Your task to perform on an android device: star an email in the gmail app Image 0: 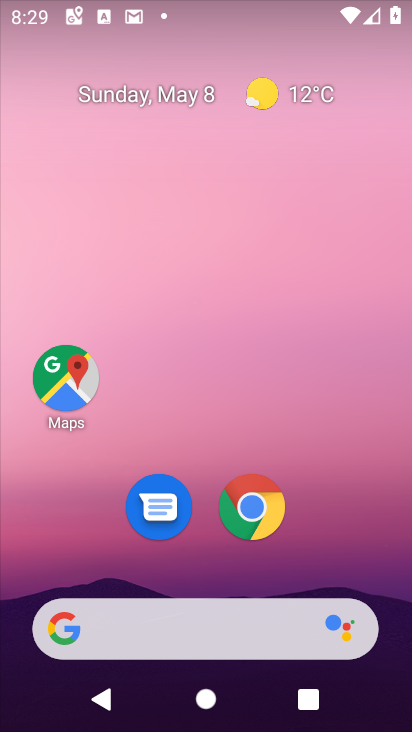
Step 0: click (179, 110)
Your task to perform on an android device: star an email in the gmail app Image 1: 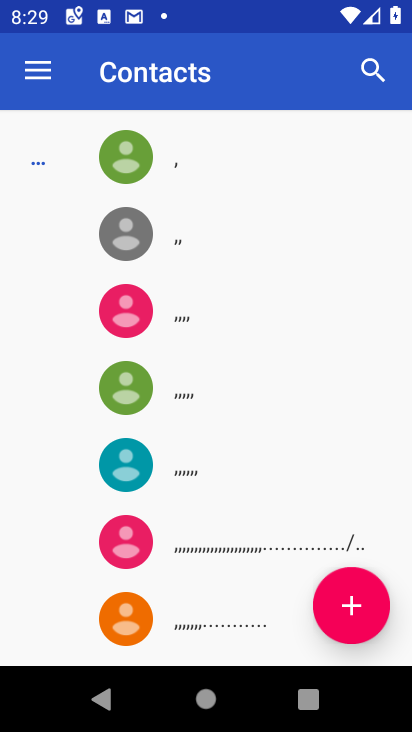
Step 1: press home button
Your task to perform on an android device: star an email in the gmail app Image 2: 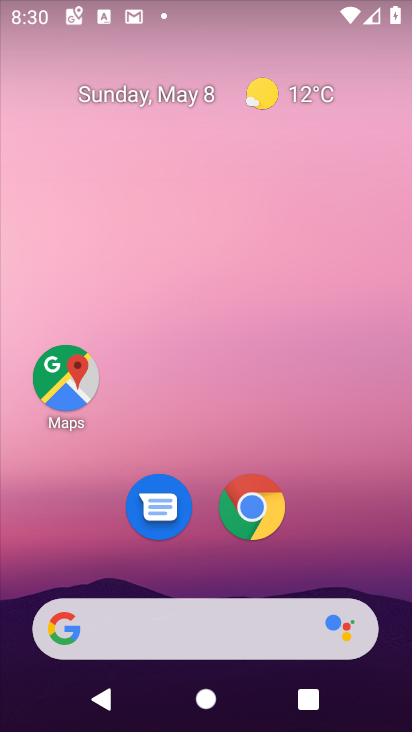
Step 2: drag from (256, 692) to (265, 150)
Your task to perform on an android device: star an email in the gmail app Image 3: 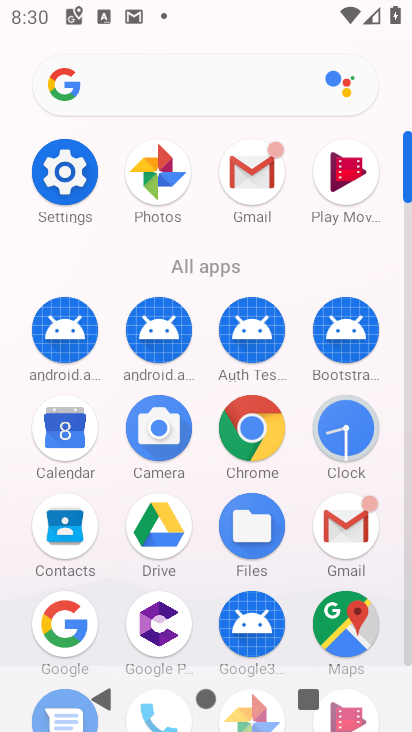
Step 3: click (253, 167)
Your task to perform on an android device: star an email in the gmail app Image 4: 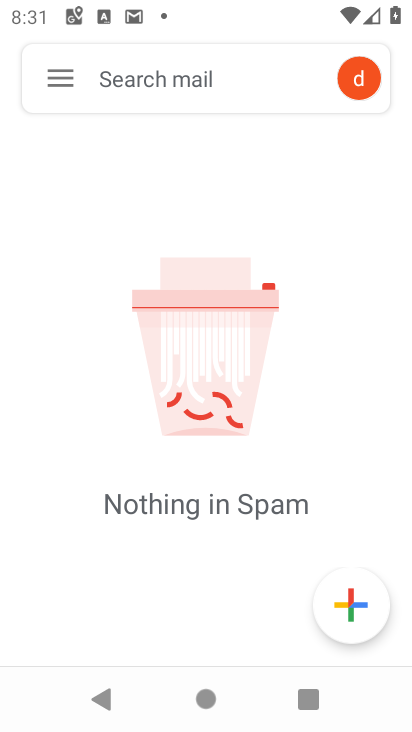
Step 4: click (65, 80)
Your task to perform on an android device: star an email in the gmail app Image 5: 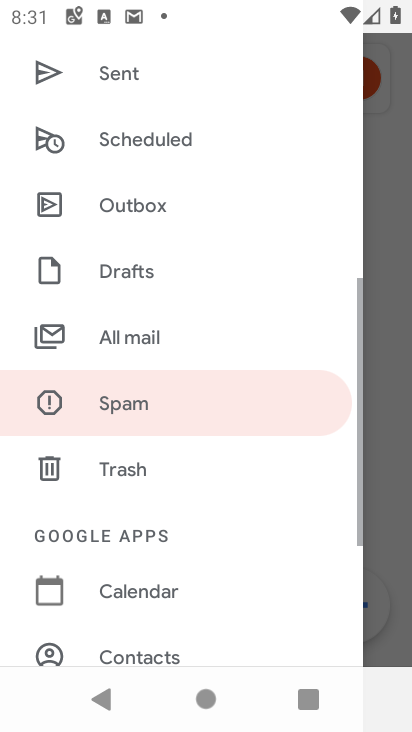
Step 5: drag from (210, 207) to (202, 611)
Your task to perform on an android device: star an email in the gmail app Image 6: 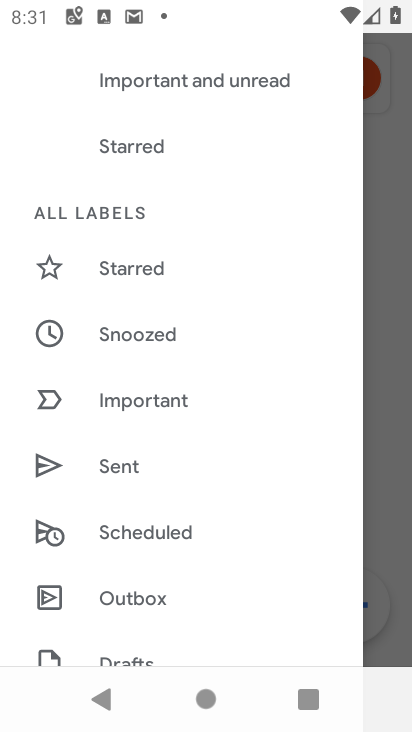
Step 6: drag from (203, 543) to (201, 86)
Your task to perform on an android device: star an email in the gmail app Image 7: 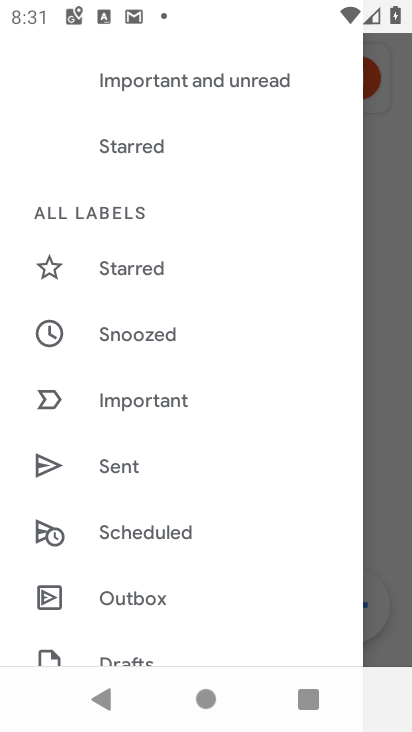
Step 7: drag from (189, 615) to (188, 245)
Your task to perform on an android device: star an email in the gmail app Image 8: 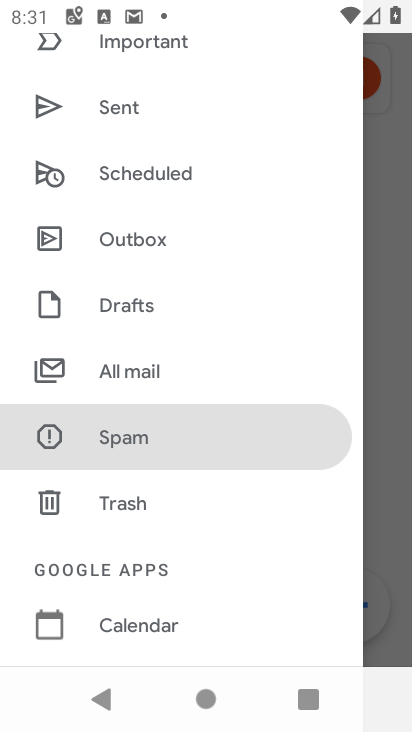
Step 8: click (145, 361)
Your task to perform on an android device: star an email in the gmail app Image 9: 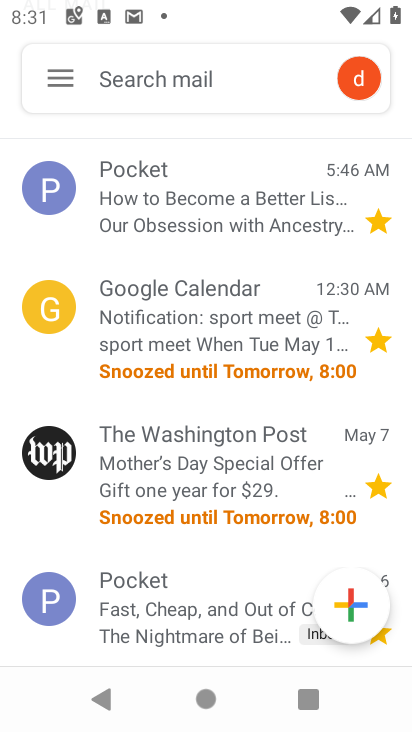
Step 9: task complete